Your task to perform on an android device: read, delete, or share a saved page in the chrome app Image 0: 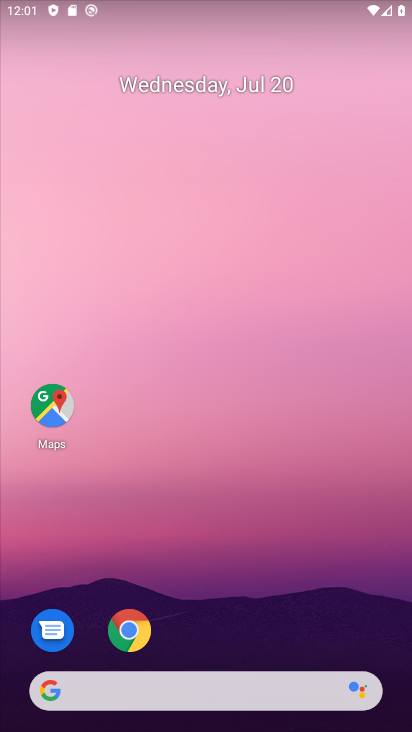
Step 0: drag from (51, 572) to (289, 94)
Your task to perform on an android device: read, delete, or share a saved page in the chrome app Image 1: 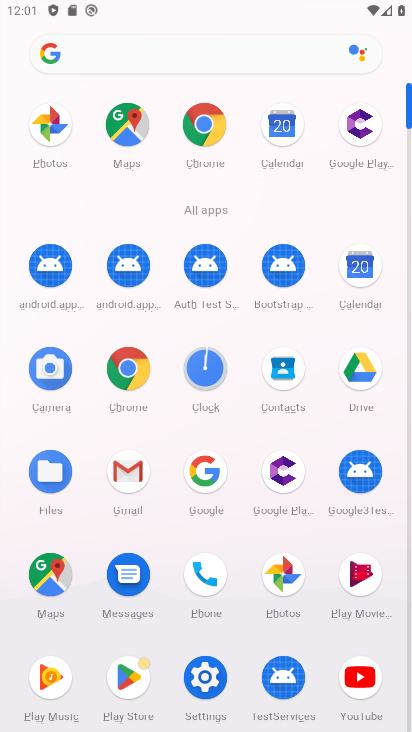
Step 1: click (212, 120)
Your task to perform on an android device: read, delete, or share a saved page in the chrome app Image 2: 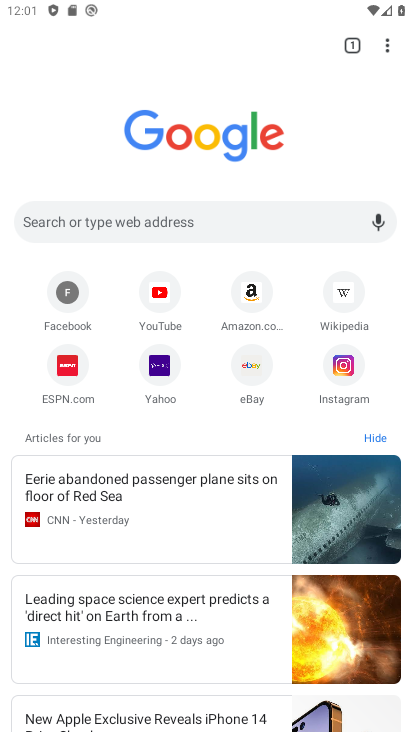
Step 2: click (352, 378)
Your task to perform on an android device: read, delete, or share a saved page in the chrome app Image 3: 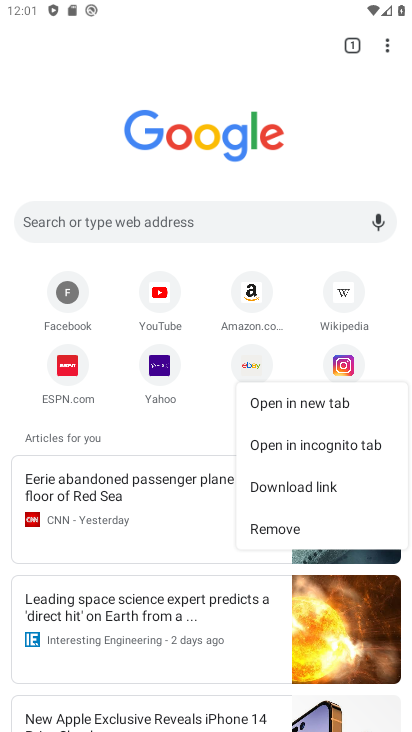
Step 3: click (303, 530)
Your task to perform on an android device: read, delete, or share a saved page in the chrome app Image 4: 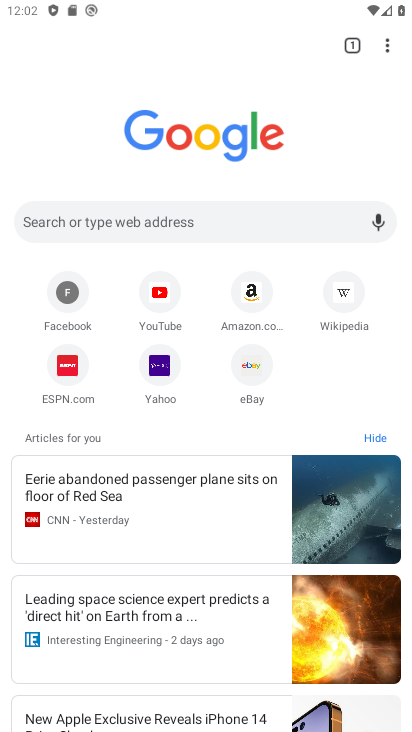
Step 4: task complete